Your task to perform on an android device: Is it going to rain tomorrow? Image 0: 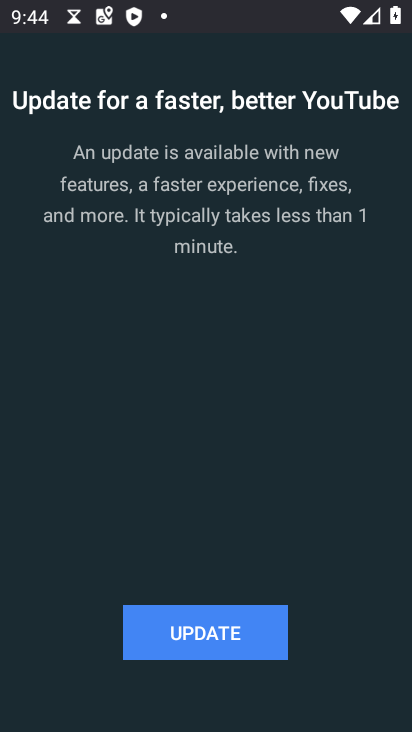
Step 0: press home button
Your task to perform on an android device: Is it going to rain tomorrow? Image 1: 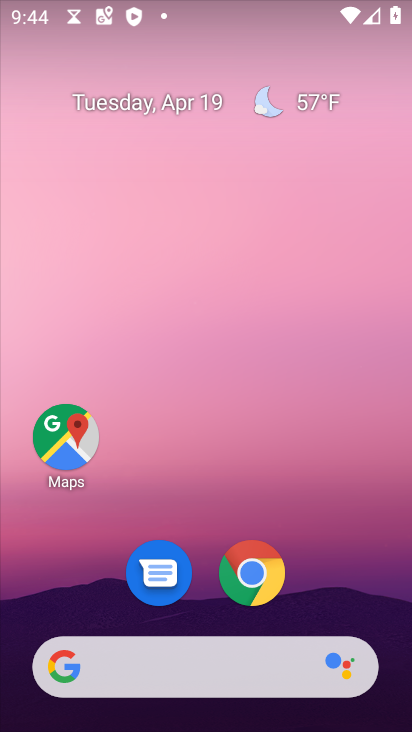
Step 1: drag from (334, 567) to (245, 643)
Your task to perform on an android device: Is it going to rain tomorrow? Image 2: 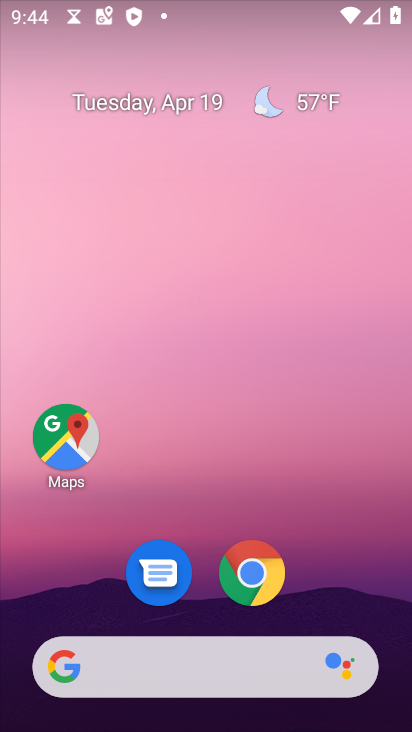
Step 2: click (280, 105)
Your task to perform on an android device: Is it going to rain tomorrow? Image 3: 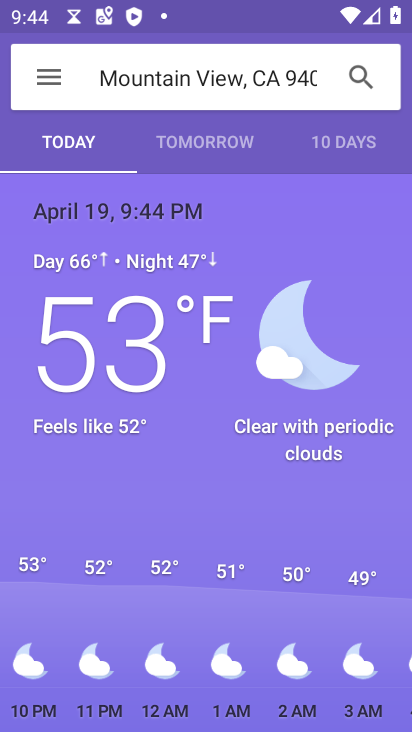
Step 3: drag from (247, 494) to (241, 248)
Your task to perform on an android device: Is it going to rain tomorrow? Image 4: 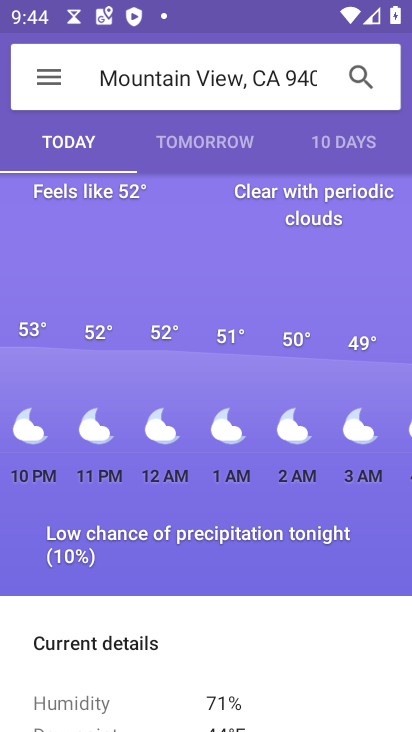
Step 4: drag from (87, 347) to (393, 345)
Your task to perform on an android device: Is it going to rain tomorrow? Image 5: 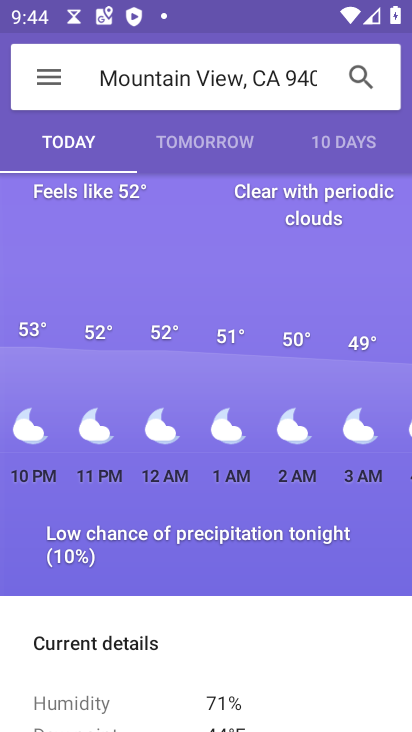
Step 5: drag from (358, 344) to (4, 331)
Your task to perform on an android device: Is it going to rain tomorrow? Image 6: 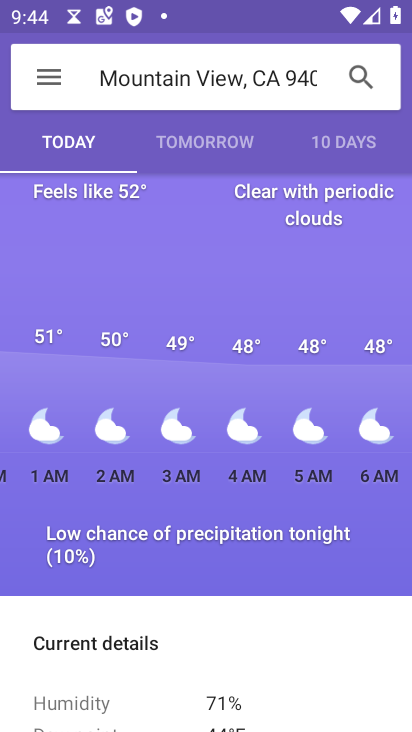
Step 6: click (189, 135)
Your task to perform on an android device: Is it going to rain tomorrow? Image 7: 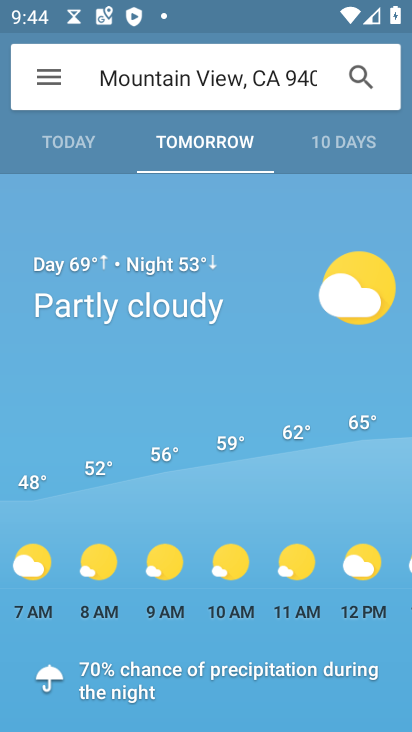
Step 7: task complete